Your task to perform on an android device: open chrome and create a bookmark for the current page Image 0: 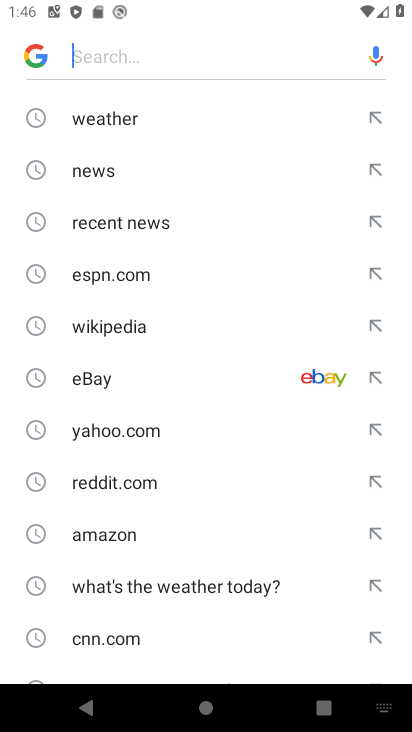
Step 0: press home button
Your task to perform on an android device: open chrome and create a bookmark for the current page Image 1: 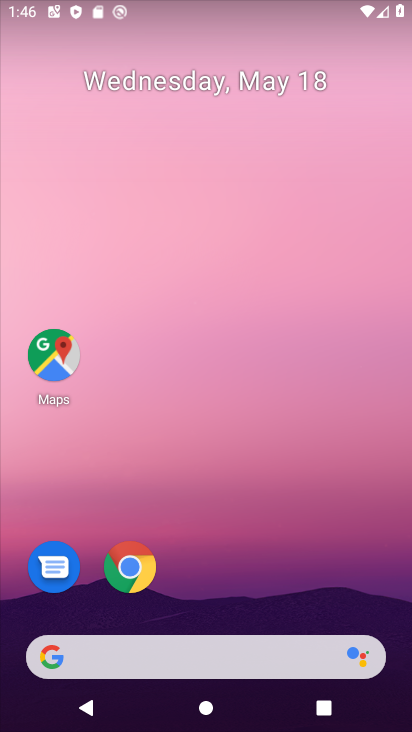
Step 1: click (127, 559)
Your task to perform on an android device: open chrome and create a bookmark for the current page Image 2: 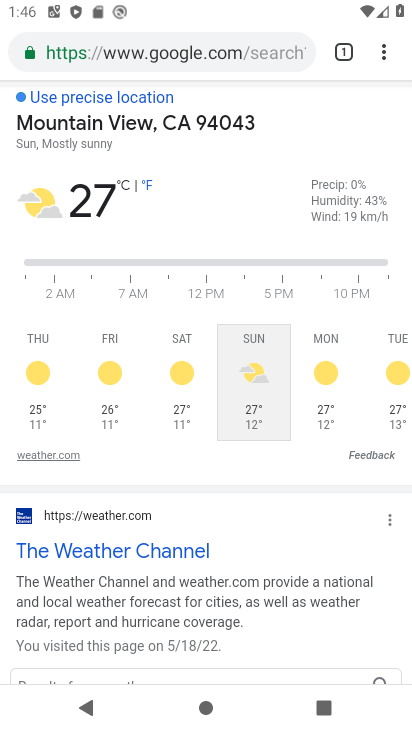
Step 2: task complete